Your task to perform on an android device: Search for vegetarian restaurants on Maps Image 0: 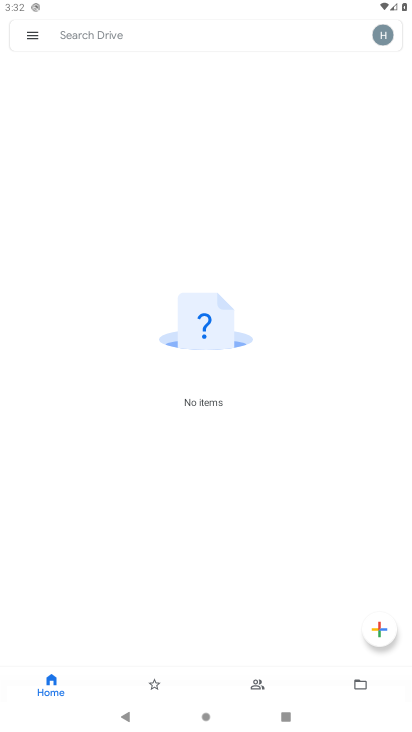
Step 0: press home button
Your task to perform on an android device: Search for vegetarian restaurants on Maps Image 1: 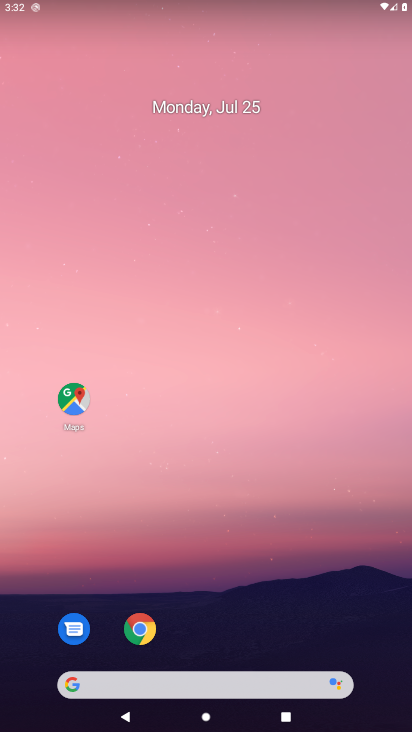
Step 1: click (77, 385)
Your task to perform on an android device: Search for vegetarian restaurants on Maps Image 2: 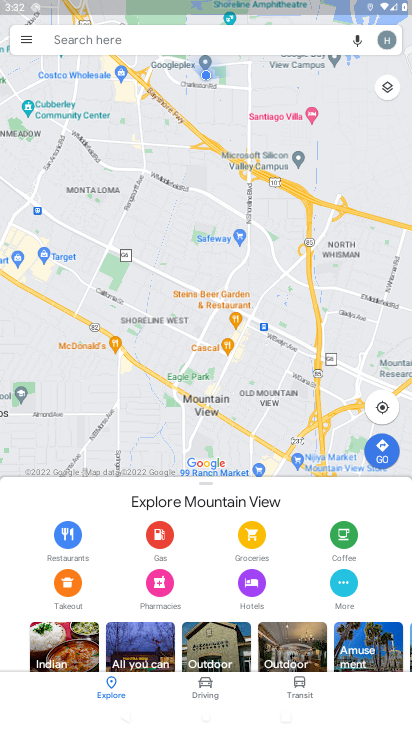
Step 2: click (71, 41)
Your task to perform on an android device: Search for vegetarian restaurants on Maps Image 3: 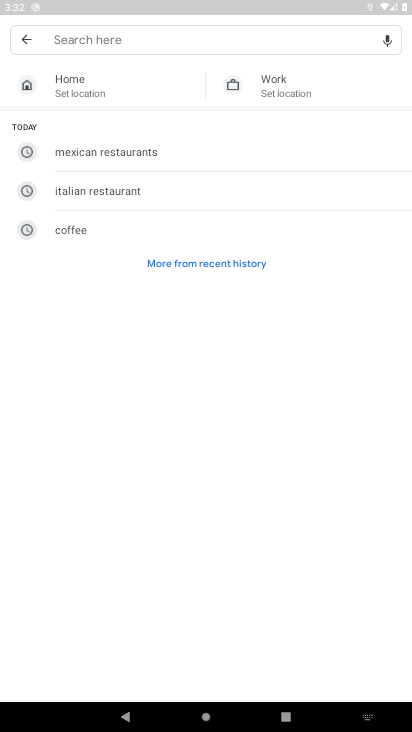
Step 3: type "vegetarian restaurants "
Your task to perform on an android device: Search for vegetarian restaurants on Maps Image 4: 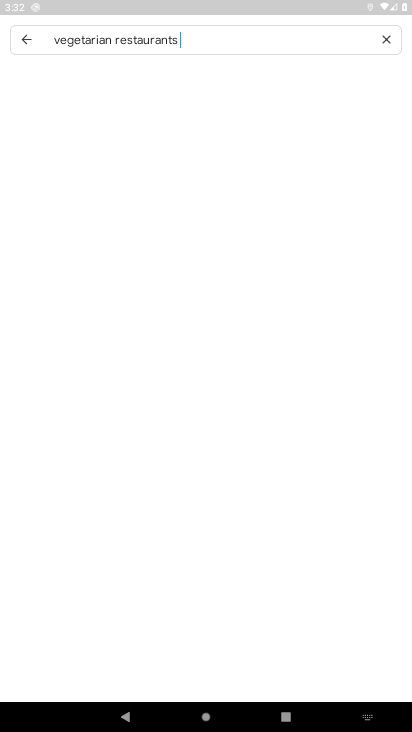
Step 4: type ""
Your task to perform on an android device: Search for vegetarian restaurants on Maps Image 5: 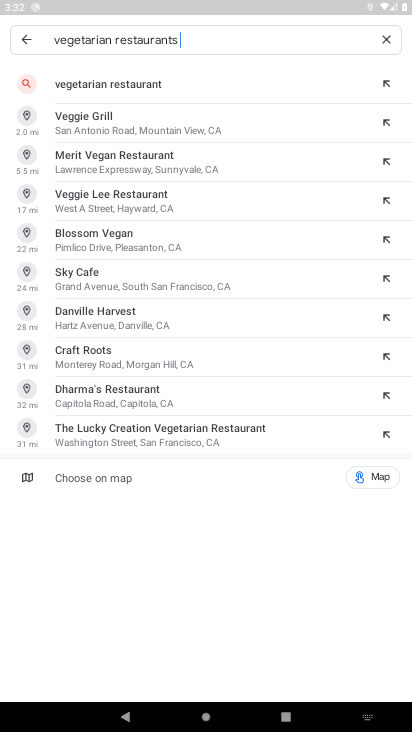
Step 5: type ""
Your task to perform on an android device: Search for vegetarian restaurants on Maps Image 6: 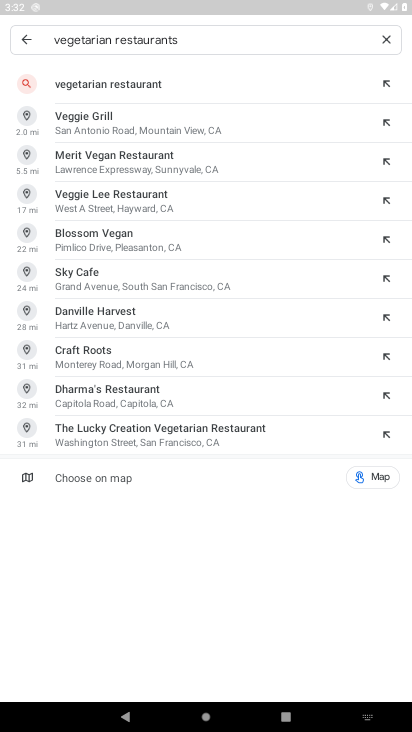
Step 6: type ""
Your task to perform on an android device: Search for vegetarian restaurants on Maps Image 7: 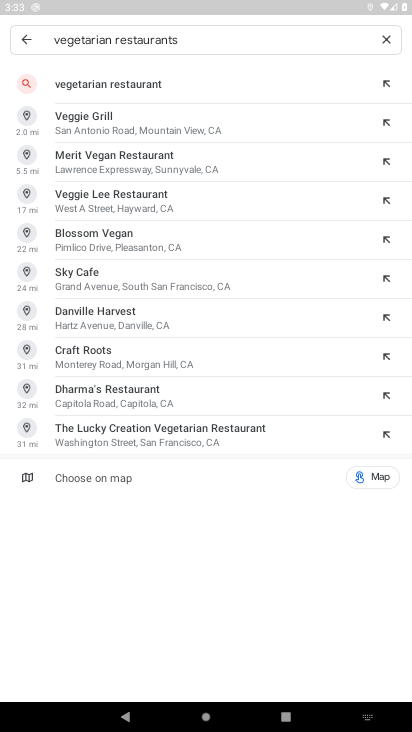
Step 7: task complete